Your task to perform on an android device: When is my next appointment? Image 0: 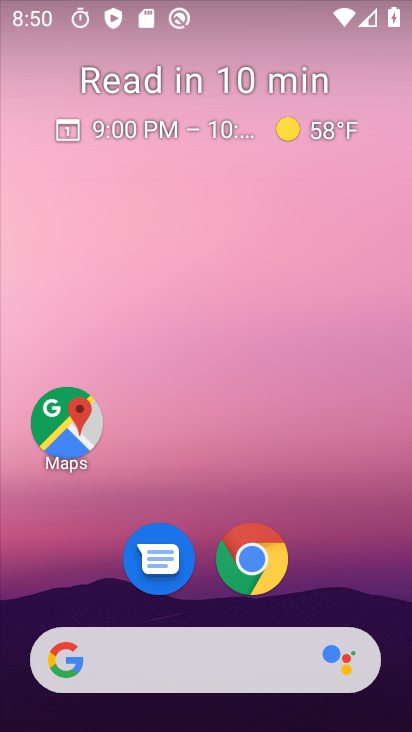
Step 0: drag from (345, 577) to (279, 58)
Your task to perform on an android device: When is my next appointment? Image 1: 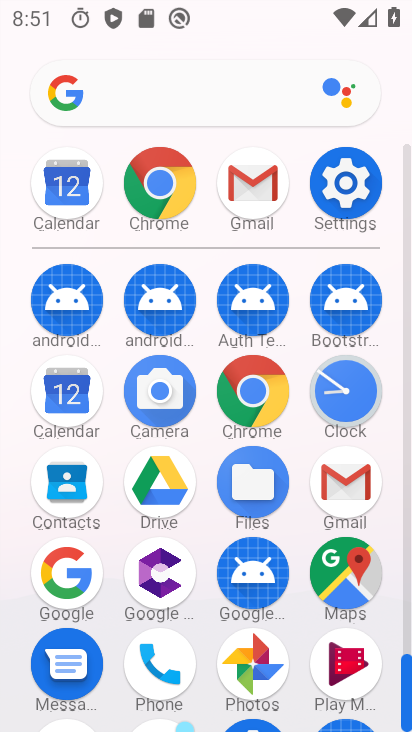
Step 1: click (70, 393)
Your task to perform on an android device: When is my next appointment? Image 2: 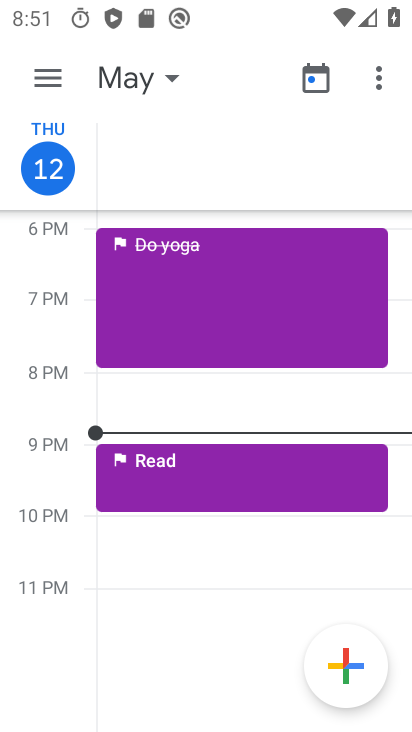
Step 2: click (170, 78)
Your task to perform on an android device: When is my next appointment? Image 3: 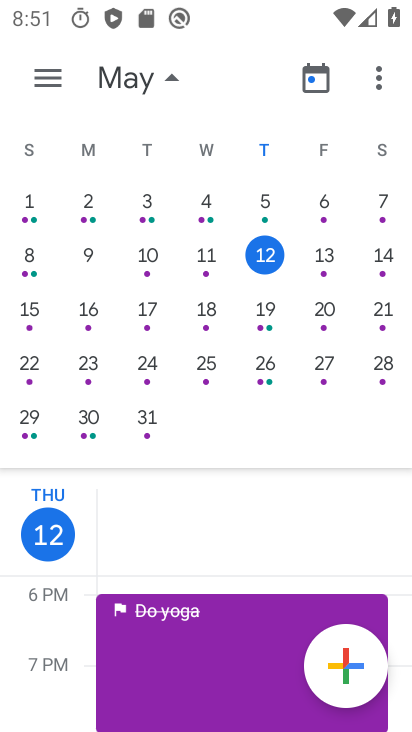
Step 3: click (318, 261)
Your task to perform on an android device: When is my next appointment? Image 4: 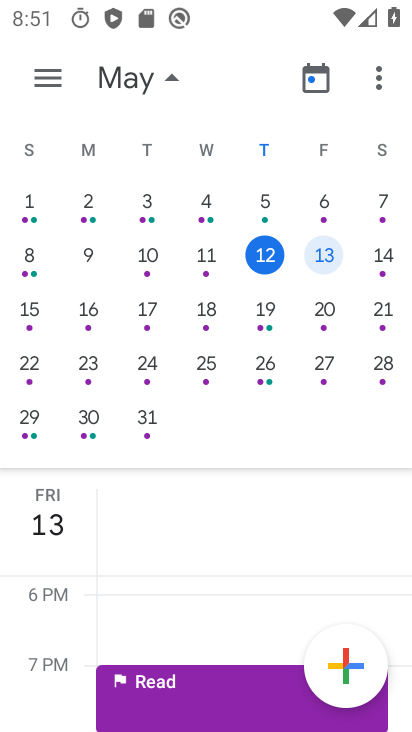
Step 4: click (50, 81)
Your task to perform on an android device: When is my next appointment? Image 5: 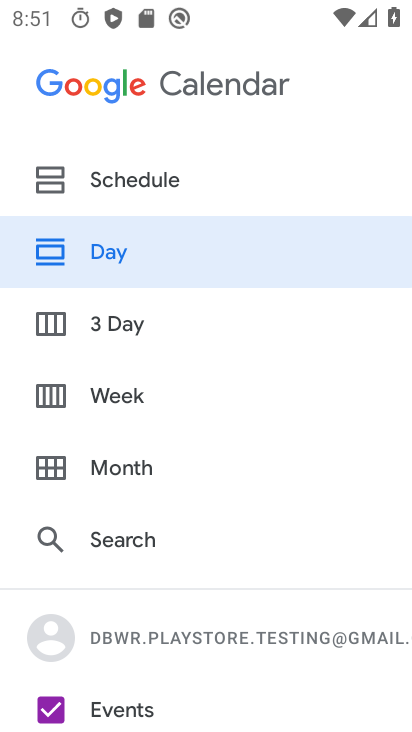
Step 5: click (95, 174)
Your task to perform on an android device: When is my next appointment? Image 6: 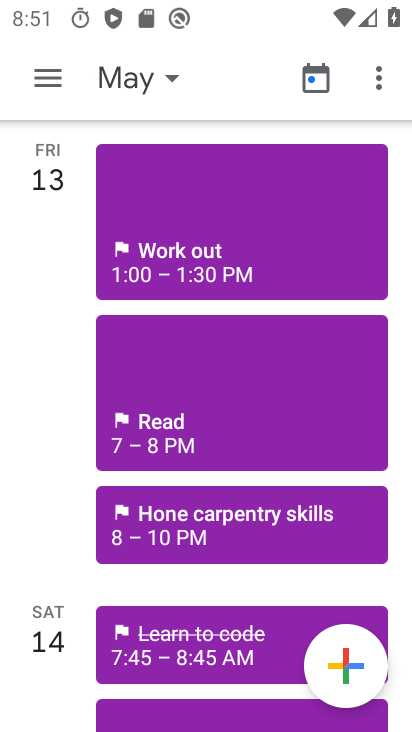
Step 6: task complete